Your task to perform on an android device: see sites visited before in the chrome app Image 0: 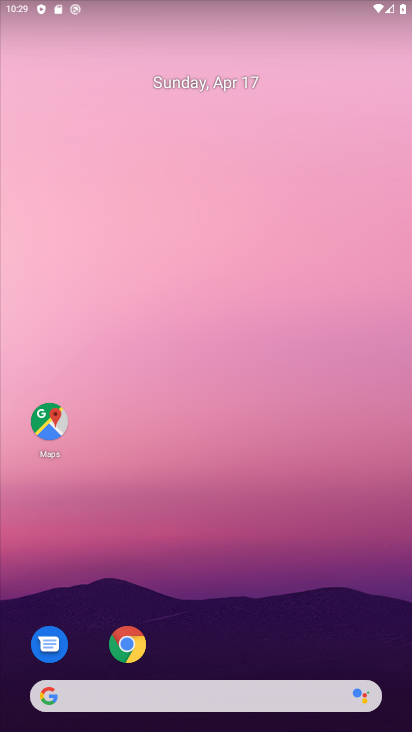
Step 0: click (136, 641)
Your task to perform on an android device: see sites visited before in the chrome app Image 1: 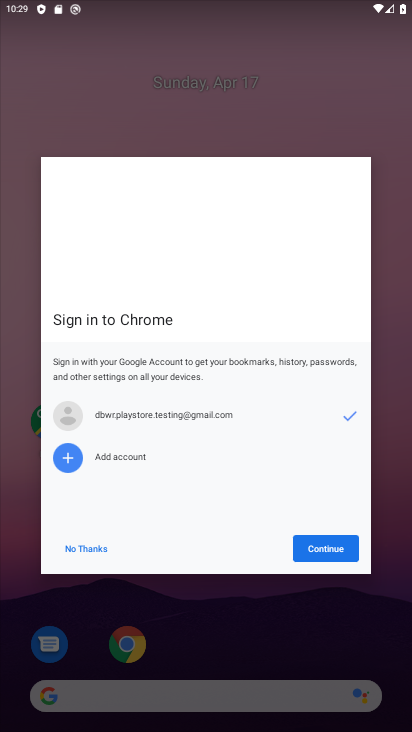
Step 1: click (338, 550)
Your task to perform on an android device: see sites visited before in the chrome app Image 2: 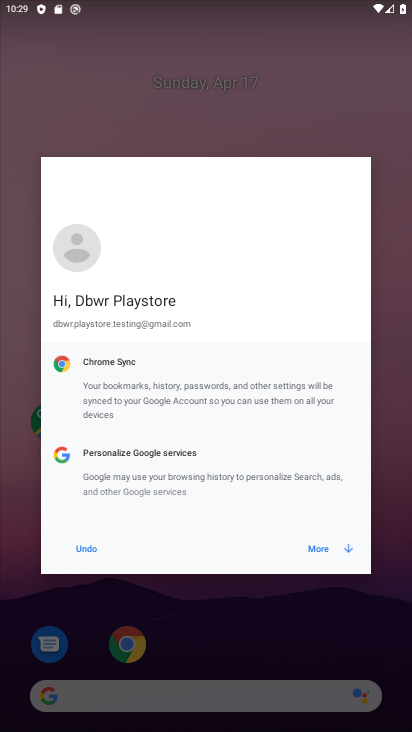
Step 2: click (341, 547)
Your task to perform on an android device: see sites visited before in the chrome app Image 3: 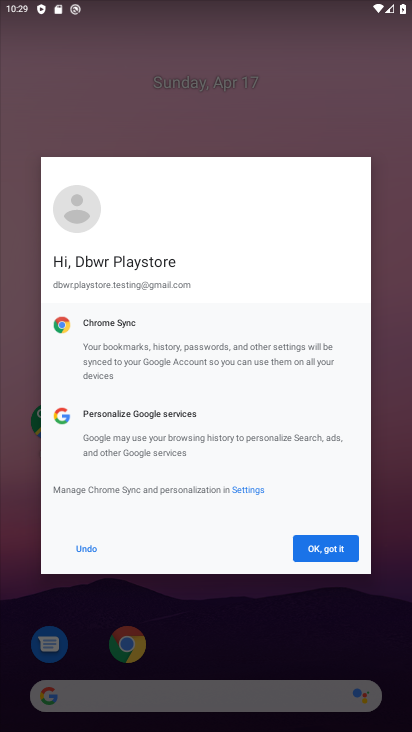
Step 3: click (341, 547)
Your task to perform on an android device: see sites visited before in the chrome app Image 4: 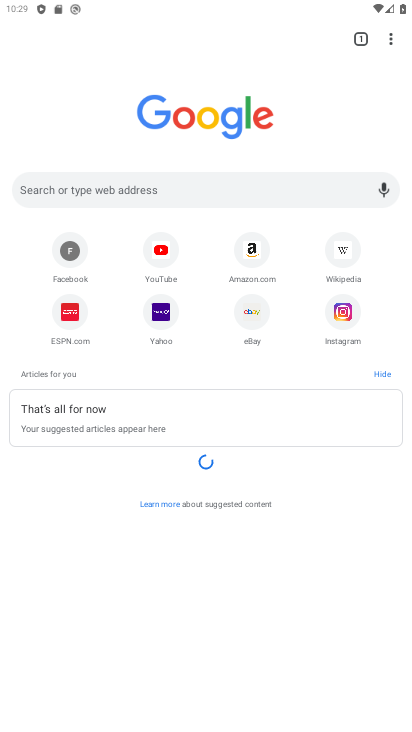
Step 4: click (386, 33)
Your task to perform on an android device: see sites visited before in the chrome app Image 5: 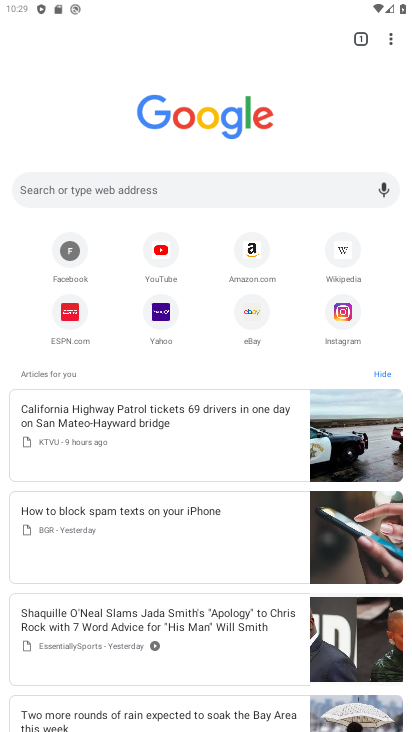
Step 5: click (391, 41)
Your task to perform on an android device: see sites visited before in the chrome app Image 6: 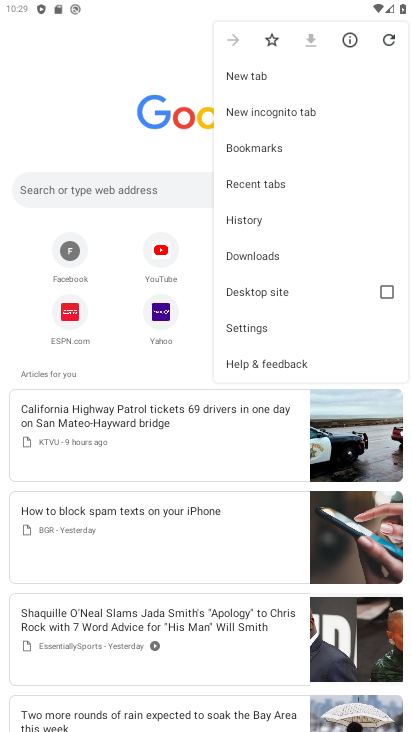
Step 6: click (248, 222)
Your task to perform on an android device: see sites visited before in the chrome app Image 7: 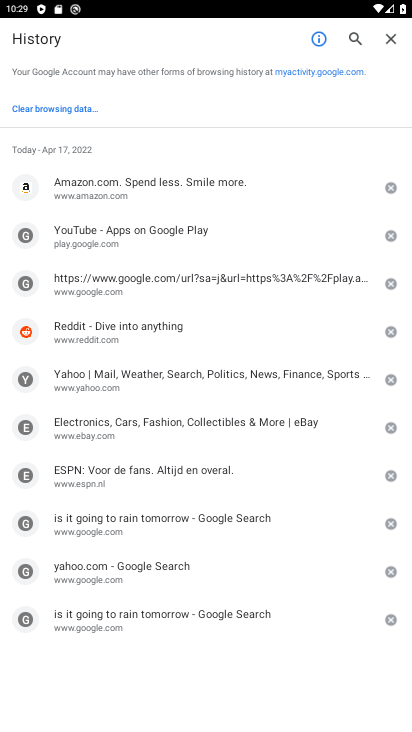
Step 7: task complete